Your task to perform on an android device: open app "Etsy: Buy & Sell Unique Items" Image 0: 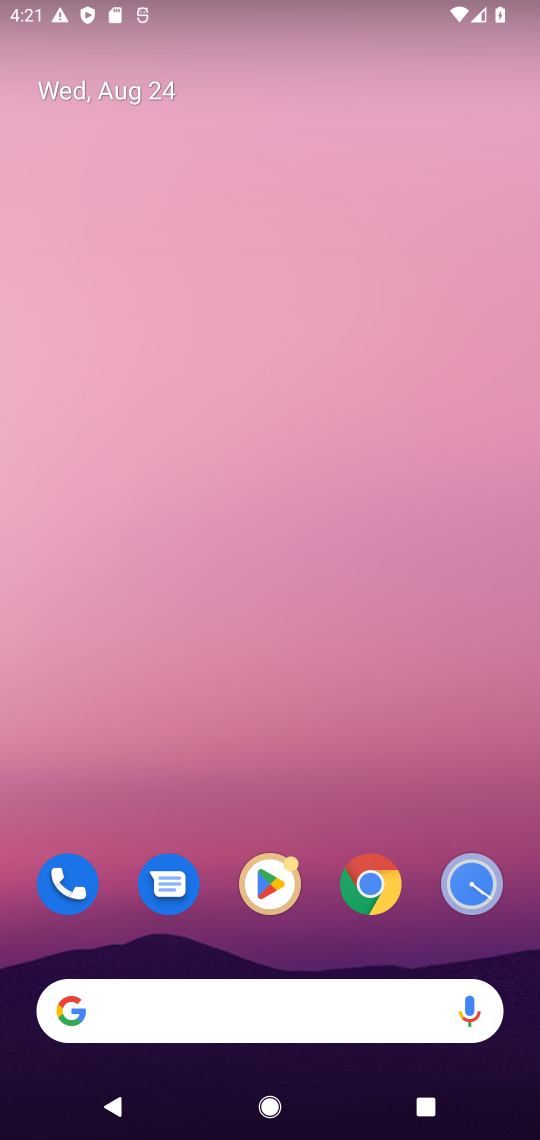
Step 0: click (272, 905)
Your task to perform on an android device: open app "Etsy: Buy & Sell Unique Items" Image 1: 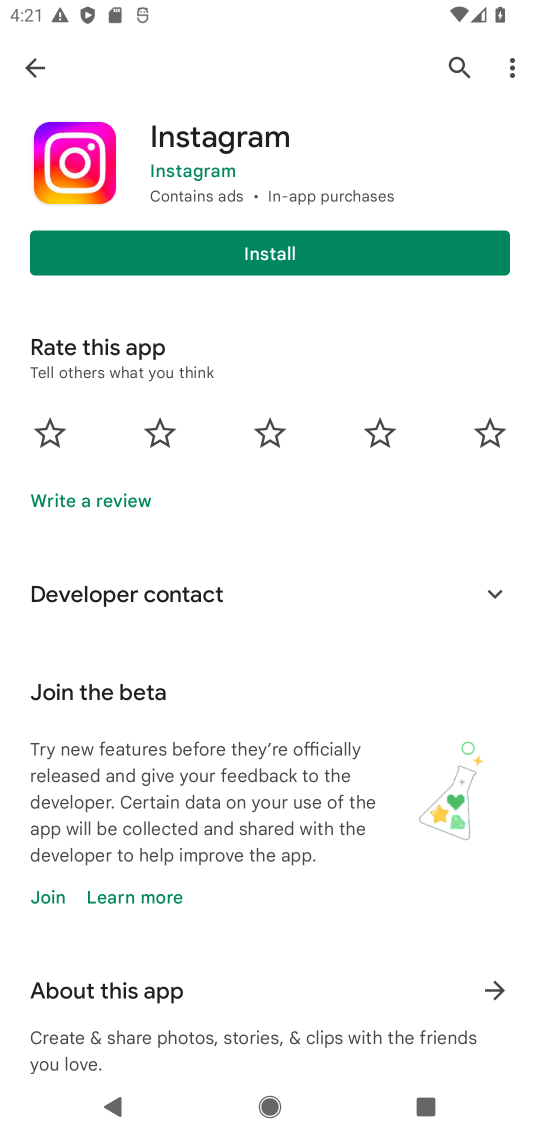
Step 1: click (29, 52)
Your task to perform on an android device: open app "Etsy: Buy & Sell Unique Items" Image 2: 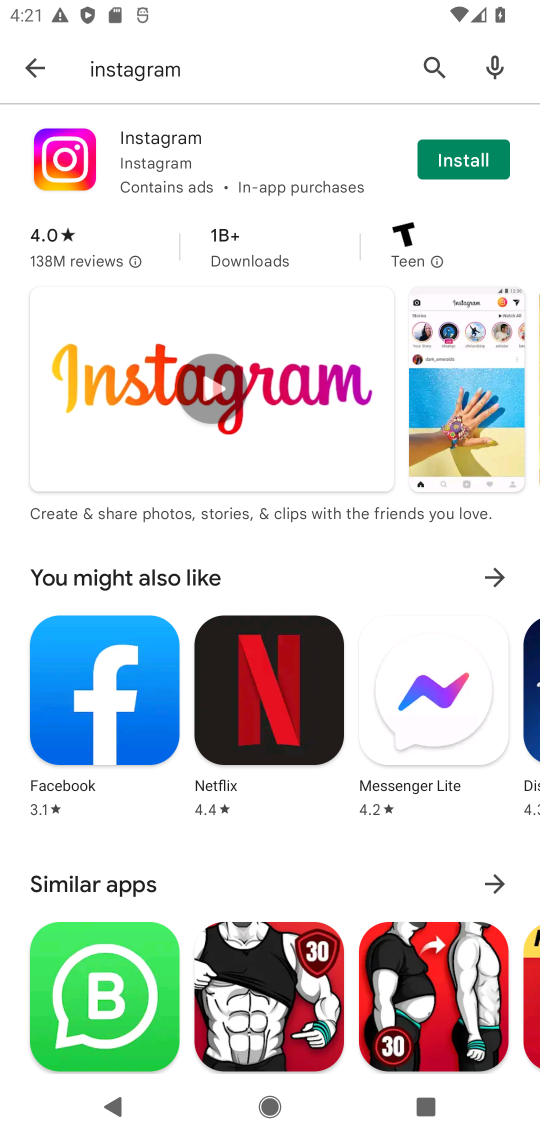
Step 2: click (43, 57)
Your task to perform on an android device: open app "Etsy: Buy & Sell Unique Items" Image 3: 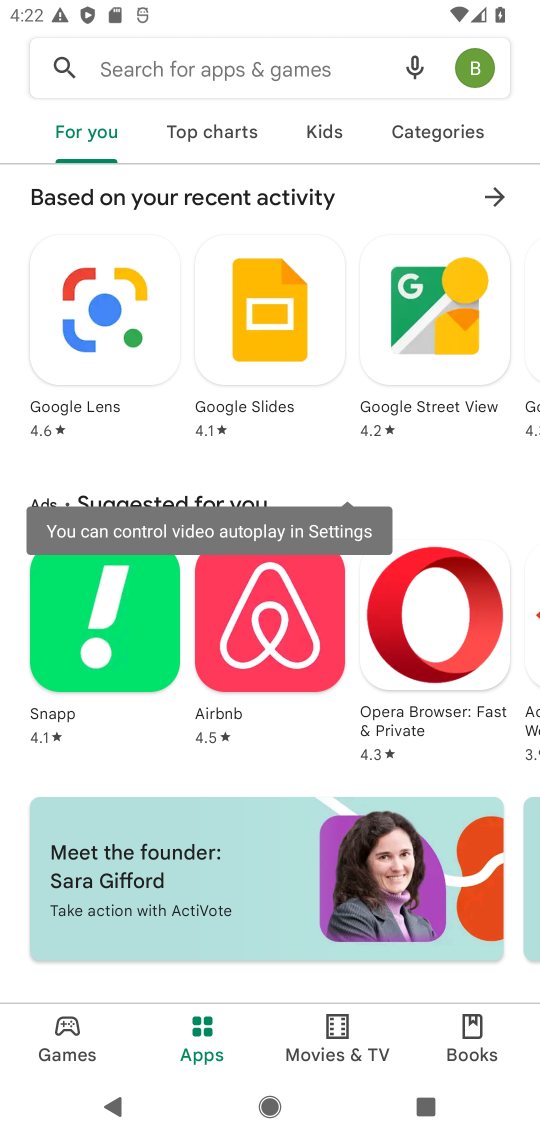
Step 3: click (167, 54)
Your task to perform on an android device: open app "Etsy: Buy & Sell Unique Items" Image 4: 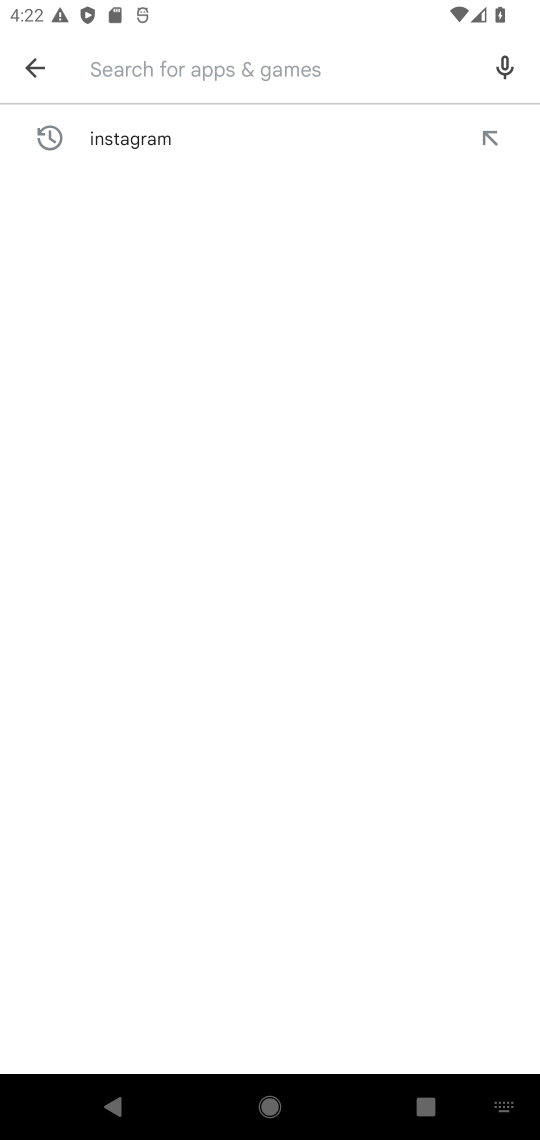
Step 4: type "Etsy"
Your task to perform on an android device: open app "Etsy: Buy & Sell Unique Items" Image 5: 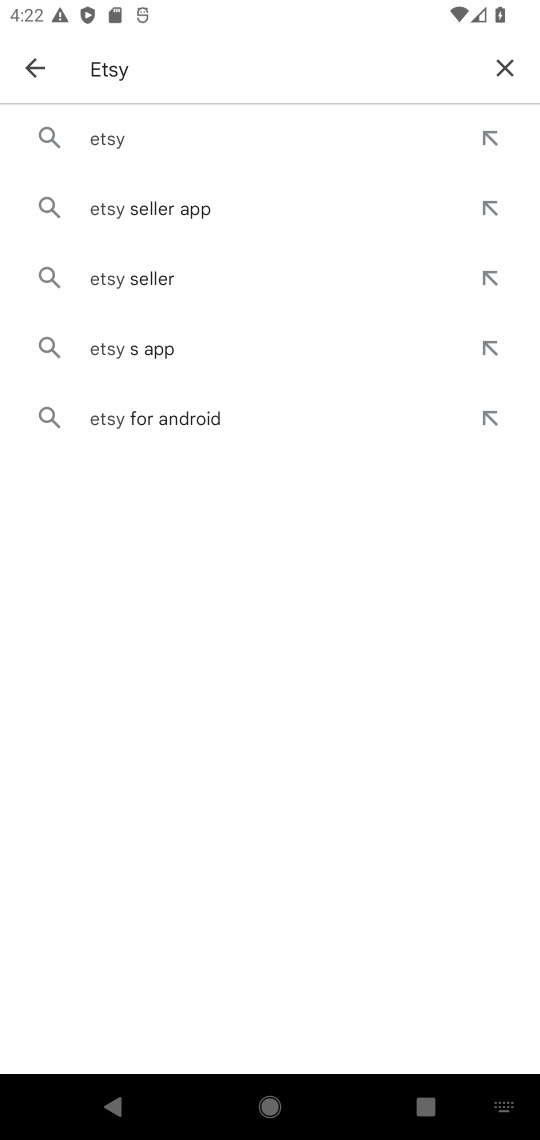
Step 5: click (89, 142)
Your task to perform on an android device: open app "Etsy: Buy & Sell Unique Items" Image 6: 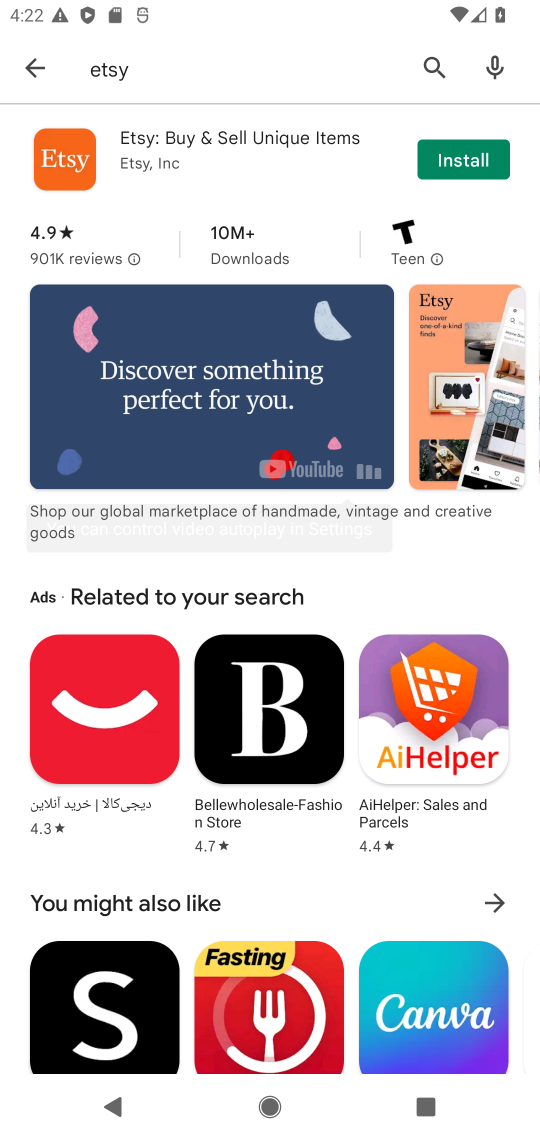
Step 6: click (449, 159)
Your task to perform on an android device: open app "Etsy: Buy & Sell Unique Items" Image 7: 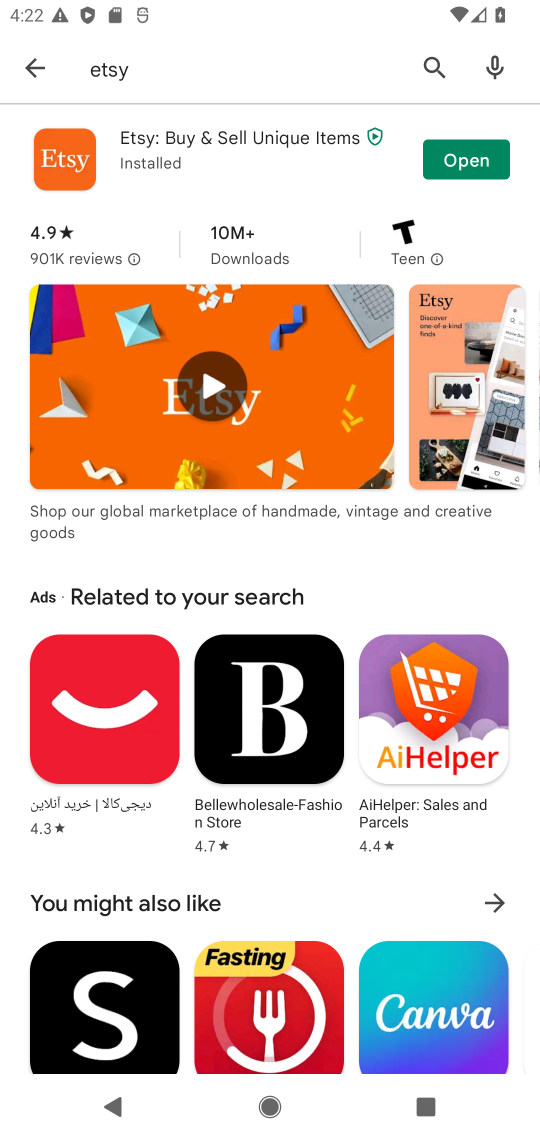
Step 7: click (444, 155)
Your task to perform on an android device: open app "Etsy: Buy & Sell Unique Items" Image 8: 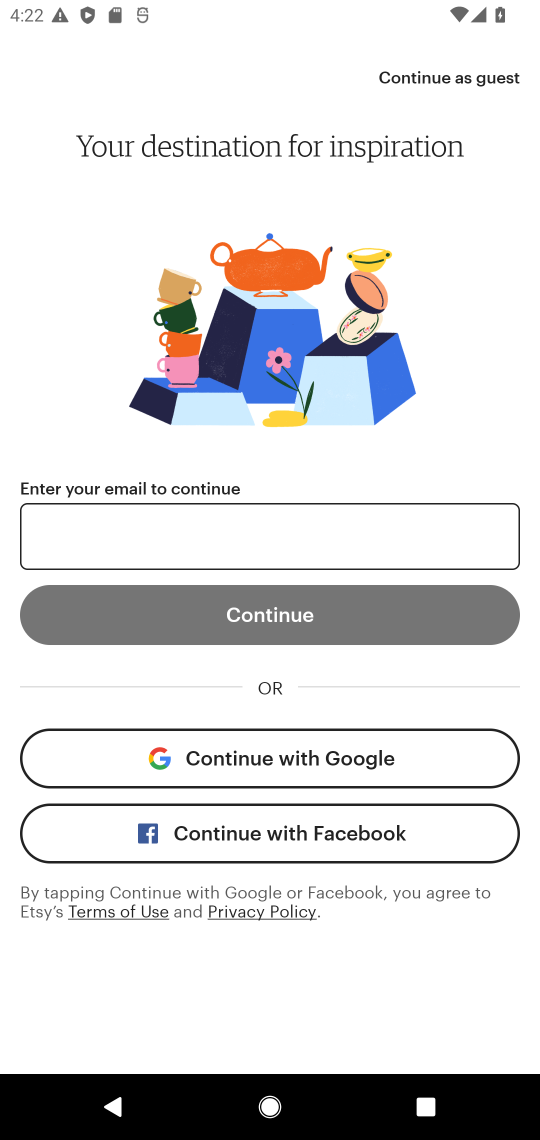
Step 8: task complete